Your task to perform on an android device: add a contact Image 0: 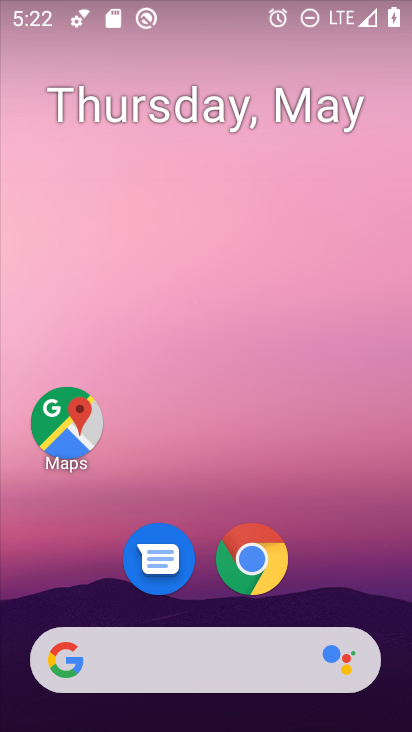
Step 0: drag from (298, 286) to (221, 30)
Your task to perform on an android device: add a contact Image 1: 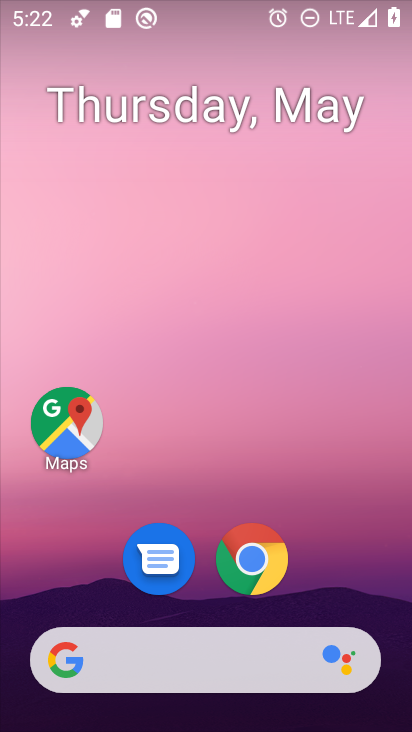
Step 1: drag from (355, 550) to (208, 2)
Your task to perform on an android device: add a contact Image 2: 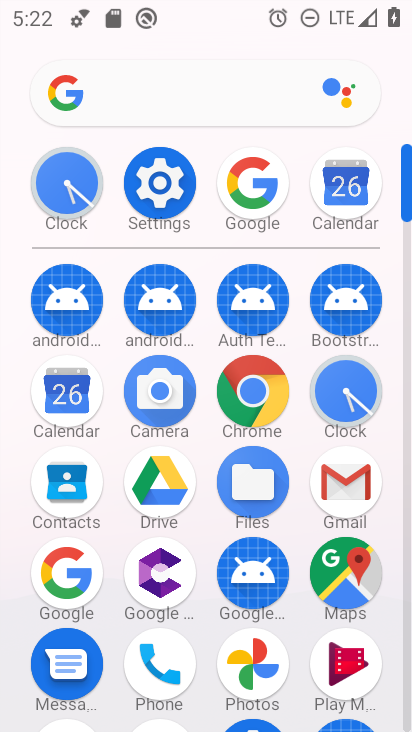
Step 2: drag from (209, 600) to (204, 260)
Your task to perform on an android device: add a contact Image 3: 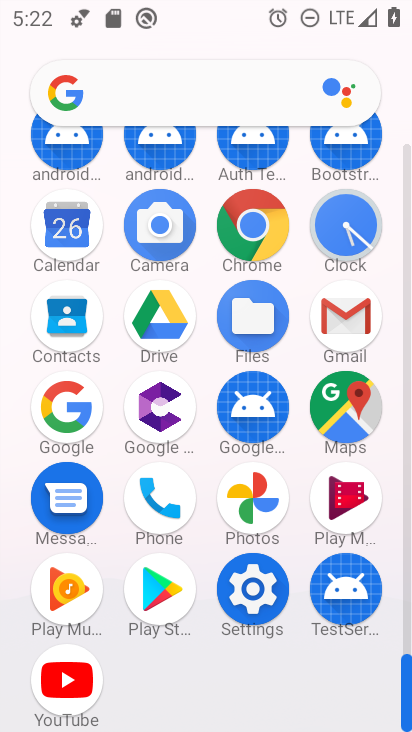
Step 3: drag from (219, 325) to (221, 675)
Your task to perform on an android device: add a contact Image 4: 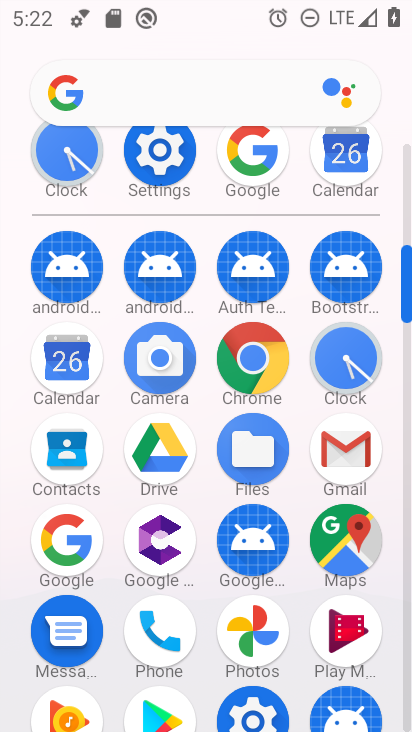
Step 4: click (56, 456)
Your task to perform on an android device: add a contact Image 5: 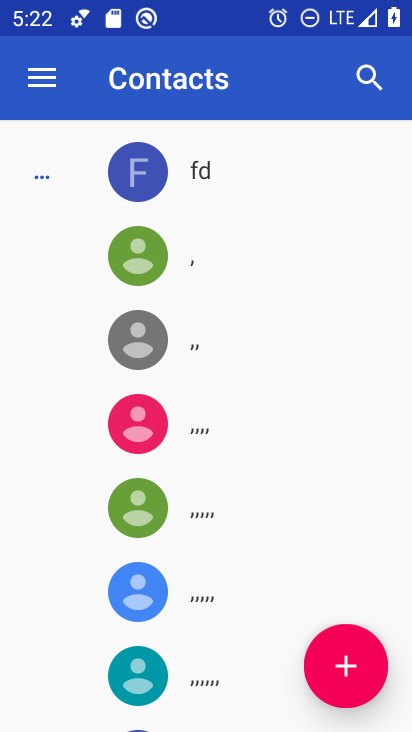
Step 5: click (344, 663)
Your task to perform on an android device: add a contact Image 6: 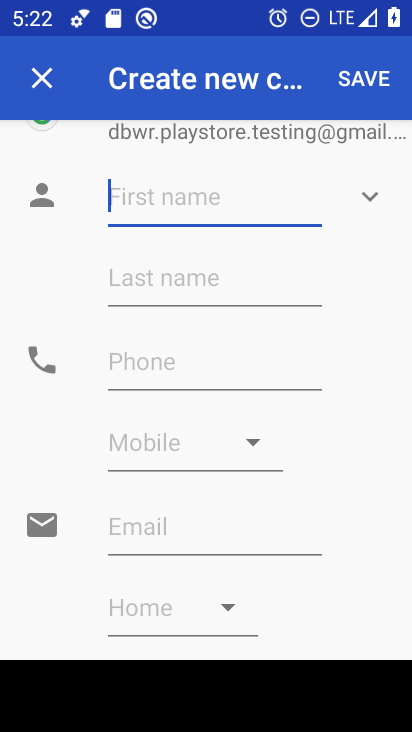
Step 6: click (254, 202)
Your task to perform on an android device: add a contact Image 7: 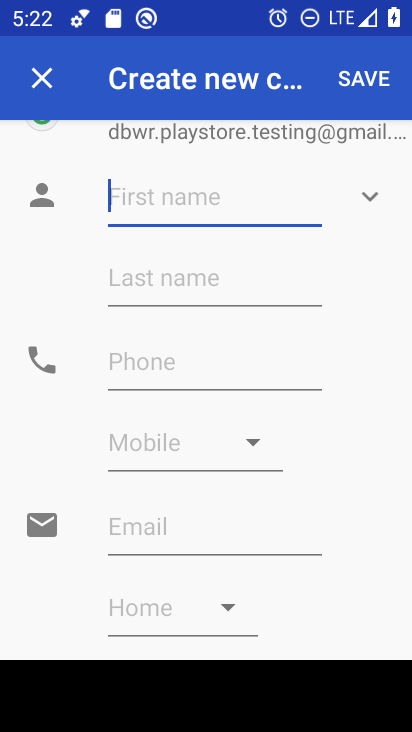
Step 7: type "fgsdf"
Your task to perform on an android device: add a contact Image 8: 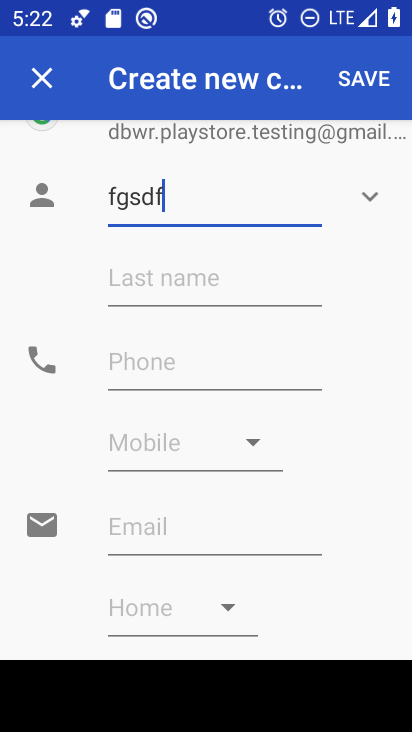
Step 8: type ""
Your task to perform on an android device: add a contact Image 9: 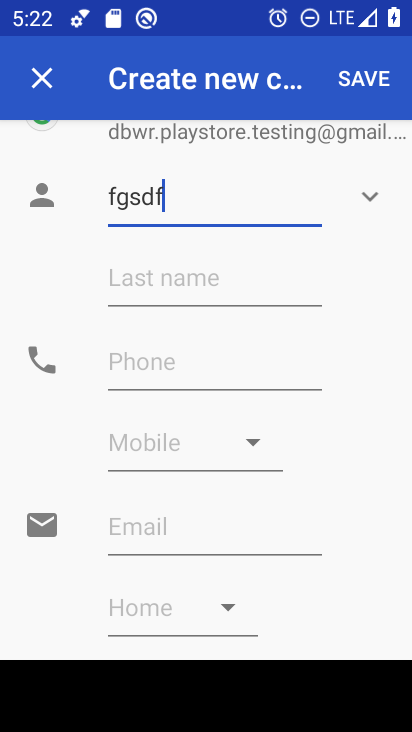
Step 9: click (309, 298)
Your task to perform on an android device: add a contact Image 10: 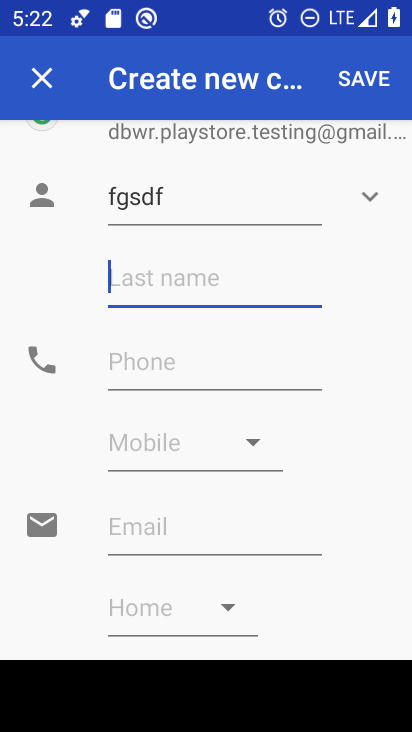
Step 10: type "fsdf"
Your task to perform on an android device: add a contact Image 11: 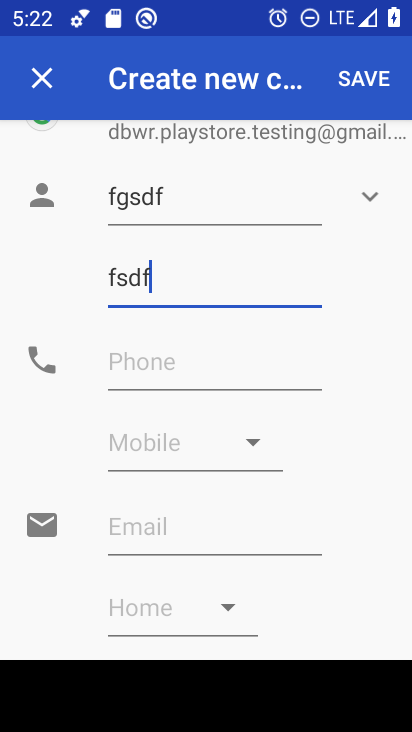
Step 11: type ""
Your task to perform on an android device: add a contact Image 12: 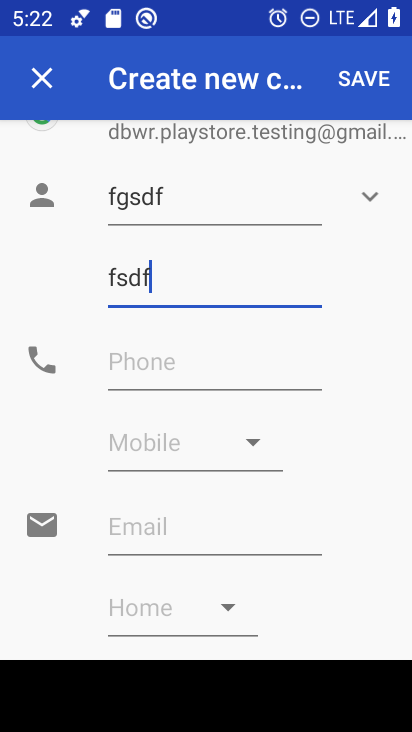
Step 12: click (241, 360)
Your task to perform on an android device: add a contact Image 13: 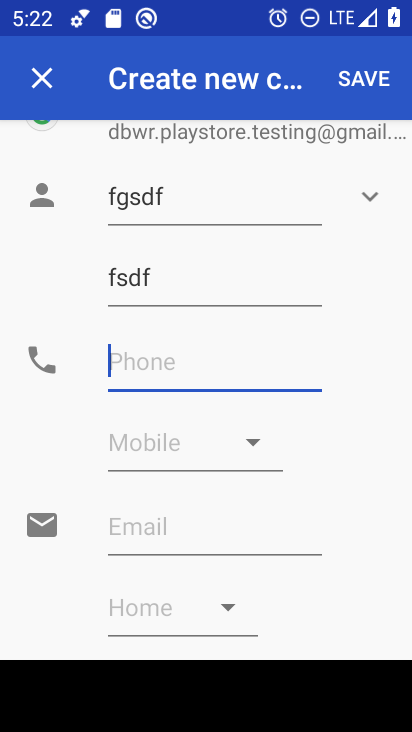
Step 13: type "5645634563"
Your task to perform on an android device: add a contact Image 14: 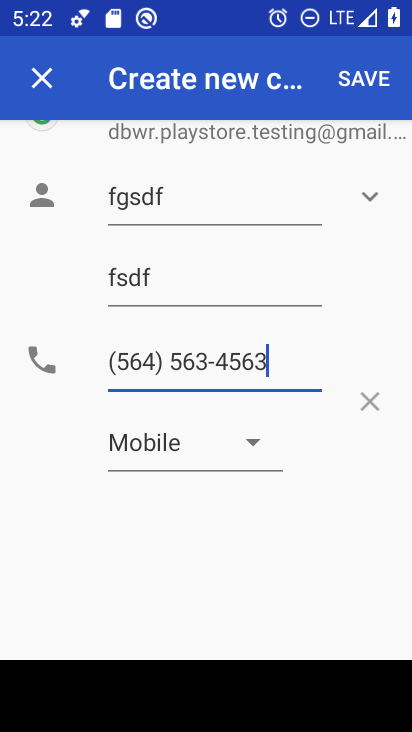
Step 14: type ""
Your task to perform on an android device: add a contact Image 15: 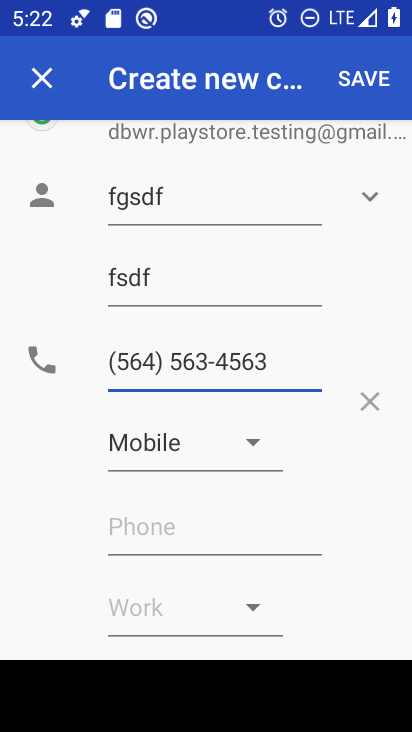
Step 15: click (373, 73)
Your task to perform on an android device: add a contact Image 16: 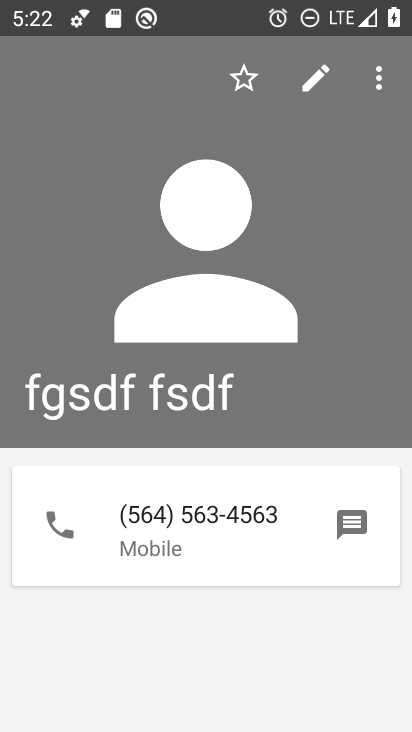
Step 16: task complete